Your task to perform on an android device: What's on my calendar today? Image 0: 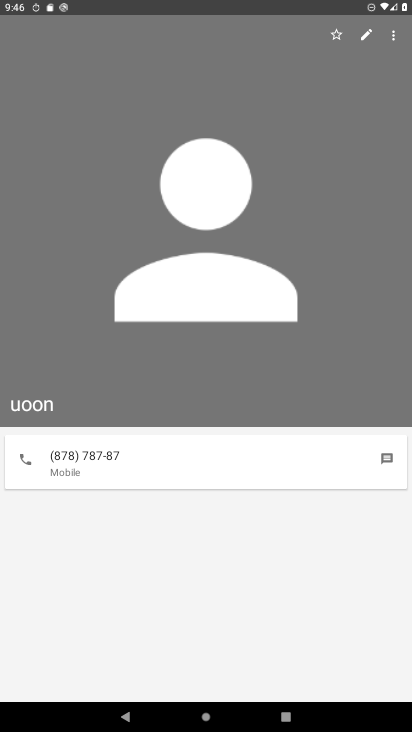
Step 0: press home button
Your task to perform on an android device: What's on my calendar today? Image 1: 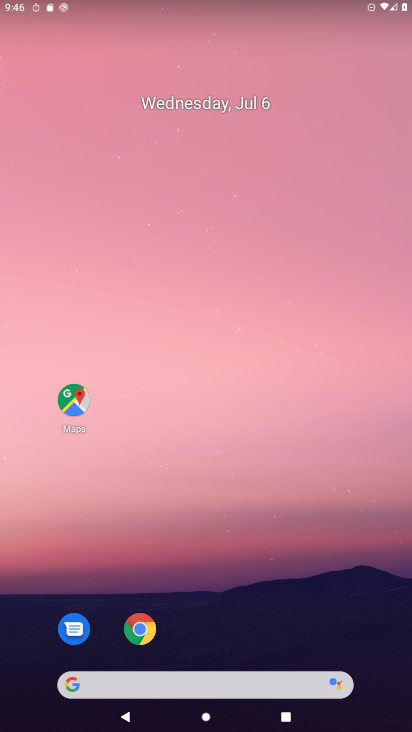
Step 1: drag from (234, 731) to (233, 177)
Your task to perform on an android device: What's on my calendar today? Image 2: 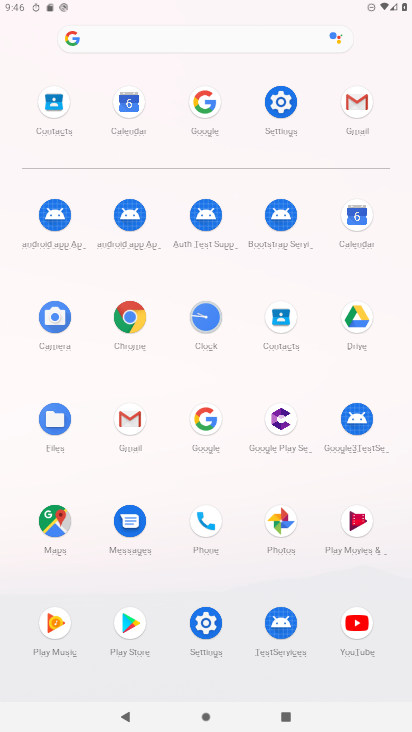
Step 2: click (359, 221)
Your task to perform on an android device: What's on my calendar today? Image 3: 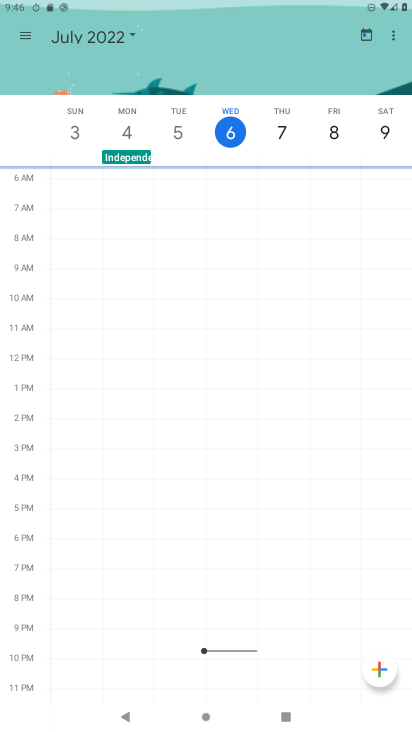
Step 3: click (225, 134)
Your task to perform on an android device: What's on my calendar today? Image 4: 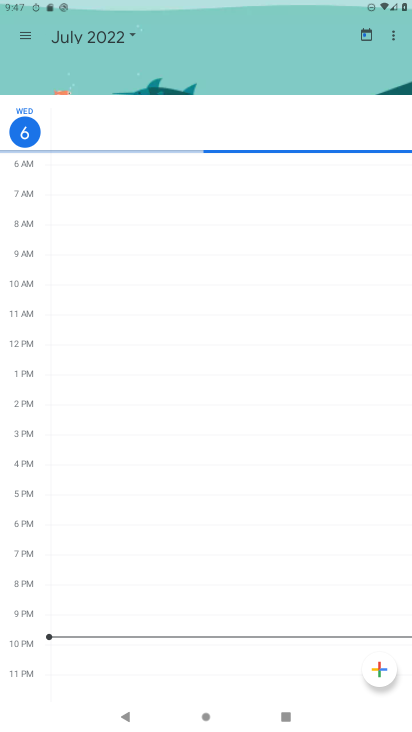
Step 4: task complete